Your task to perform on an android device: Show me recent news Image 0: 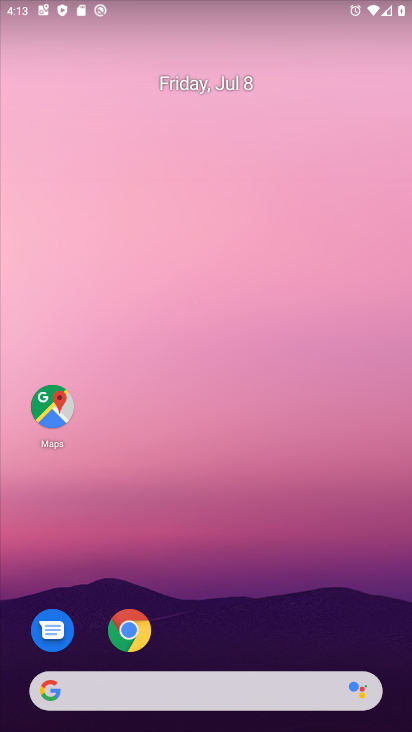
Step 0: drag from (229, 650) to (215, 96)
Your task to perform on an android device: Show me recent news Image 1: 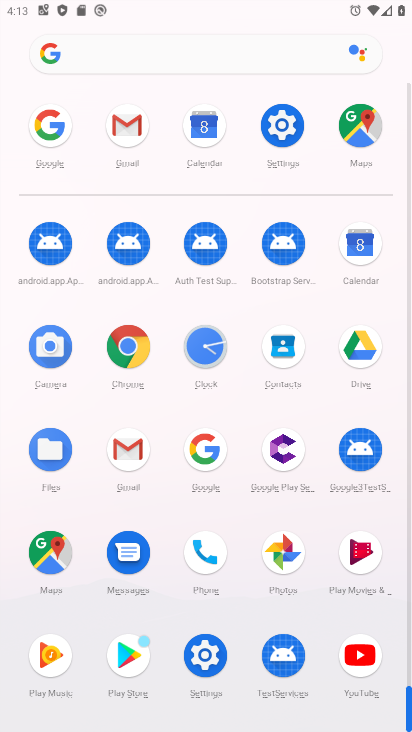
Step 1: click (50, 126)
Your task to perform on an android device: Show me recent news Image 2: 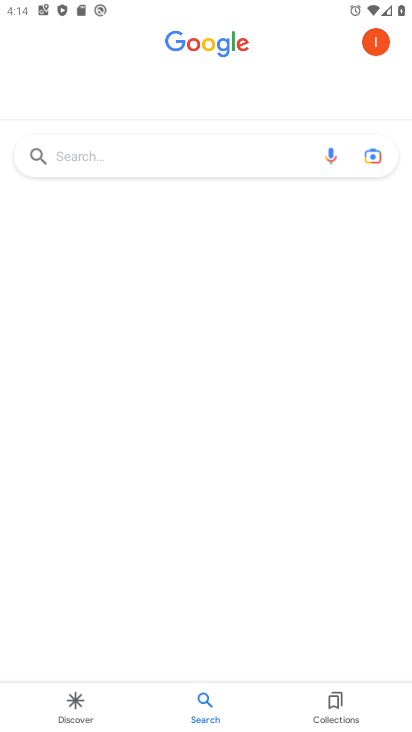
Step 2: click (78, 144)
Your task to perform on an android device: Show me recent news Image 3: 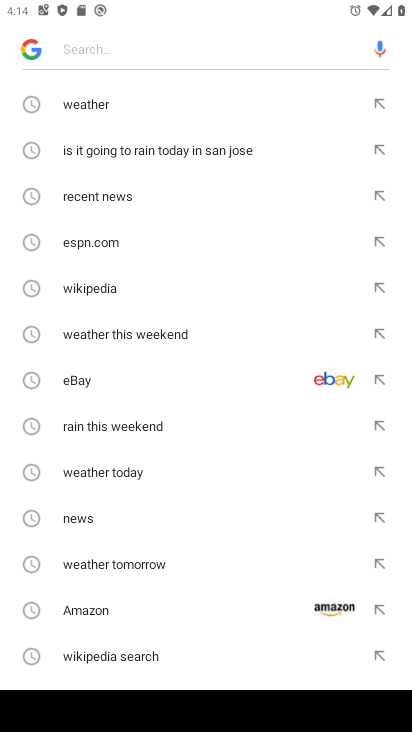
Step 3: click (112, 199)
Your task to perform on an android device: Show me recent news Image 4: 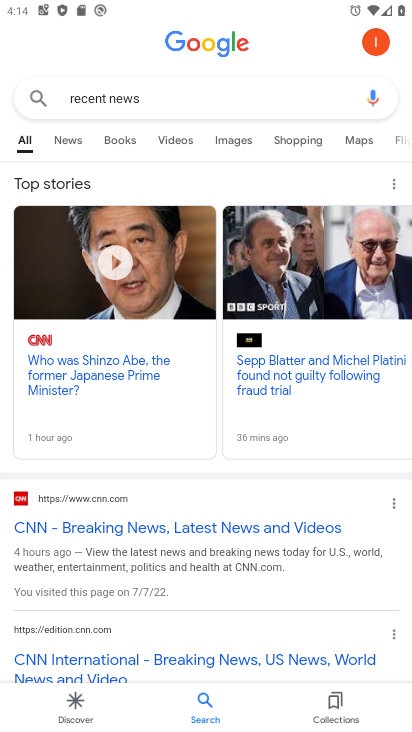
Step 4: click (94, 354)
Your task to perform on an android device: Show me recent news Image 5: 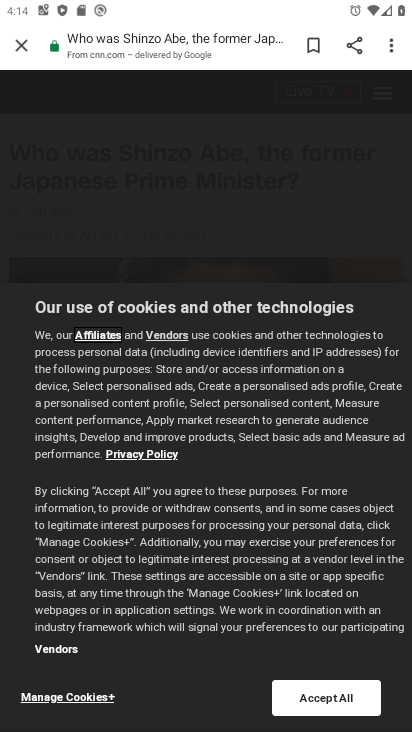
Step 5: click (317, 701)
Your task to perform on an android device: Show me recent news Image 6: 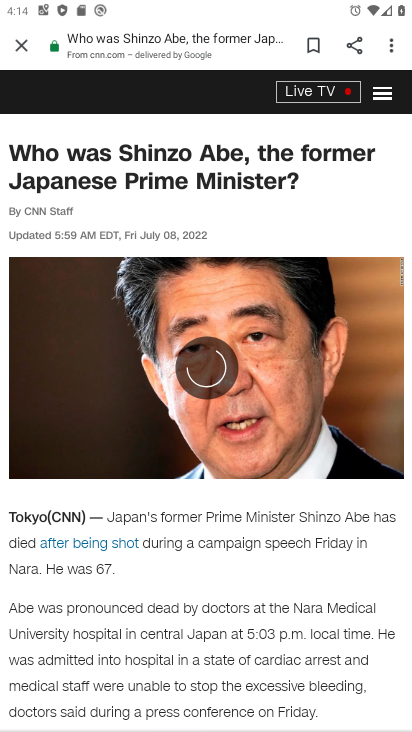
Step 6: task complete